Your task to perform on an android device: open chrome and create a bookmark for the current page Image 0: 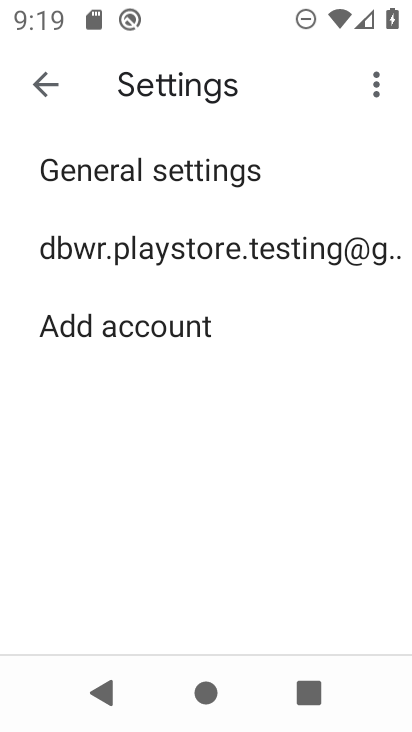
Step 0: press home button
Your task to perform on an android device: open chrome and create a bookmark for the current page Image 1: 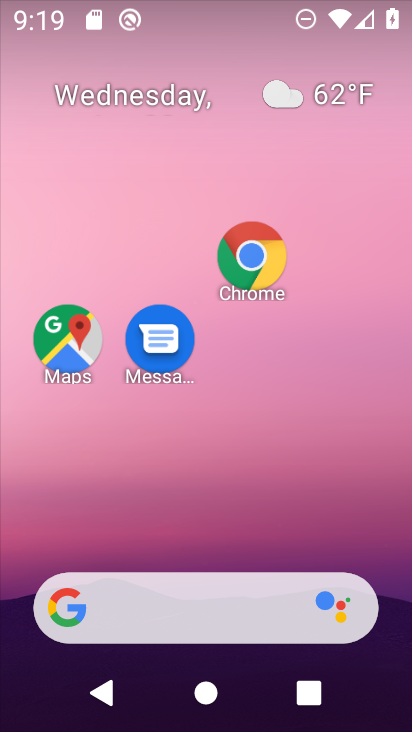
Step 1: click (254, 258)
Your task to perform on an android device: open chrome and create a bookmark for the current page Image 2: 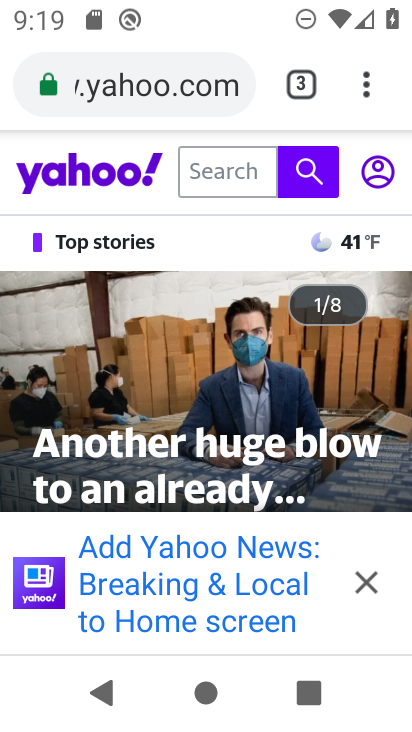
Step 2: click (365, 83)
Your task to perform on an android device: open chrome and create a bookmark for the current page Image 3: 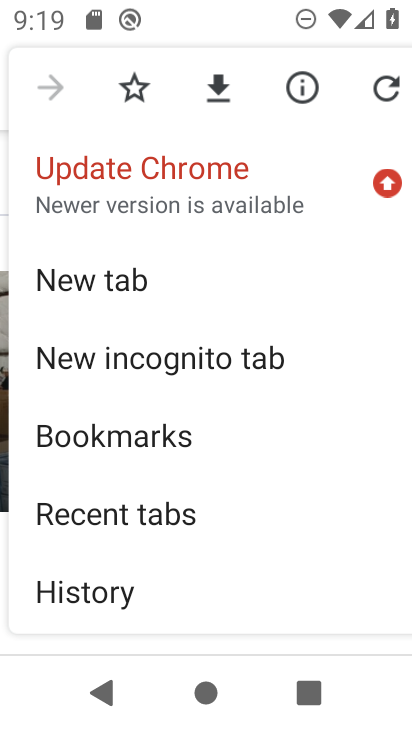
Step 3: click (135, 88)
Your task to perform on an android device: open chrome and create a bookmark for the current page Image 4: 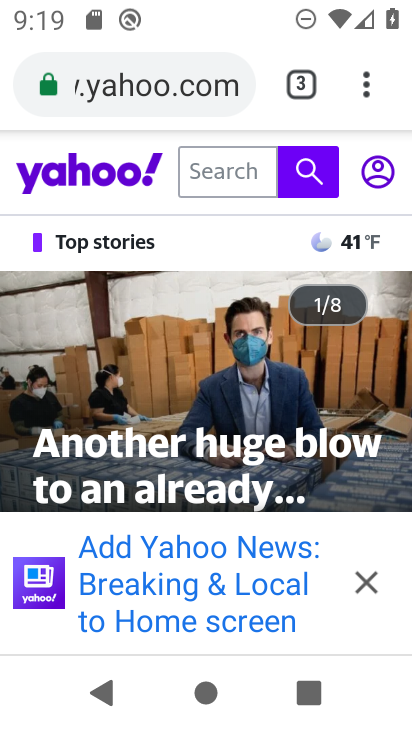
Step 4: task complete